Your task to perform on an android device: Open the map Image 0: 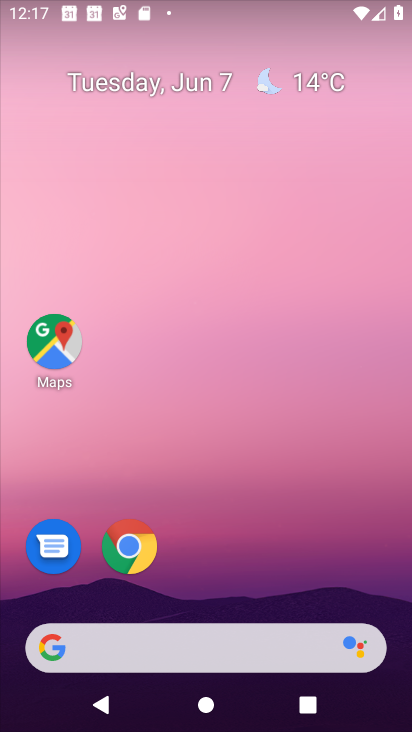
Step 0: click (59, 346)
Your task to perform on an android device: Open the map Image 1: 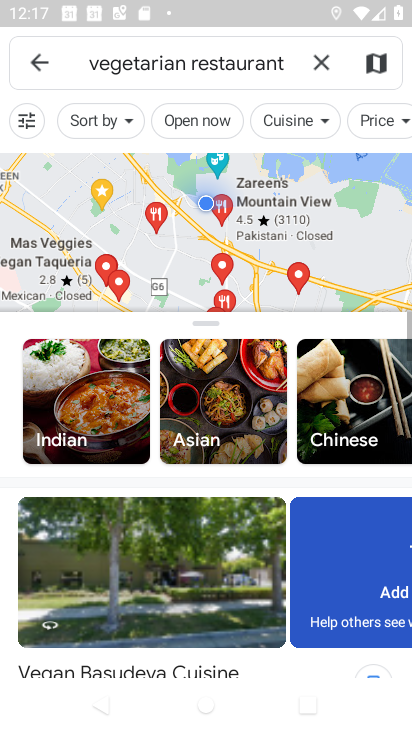
Step 1: click (36, 59)
Your task to perform on an android device: Open the map Image 2: 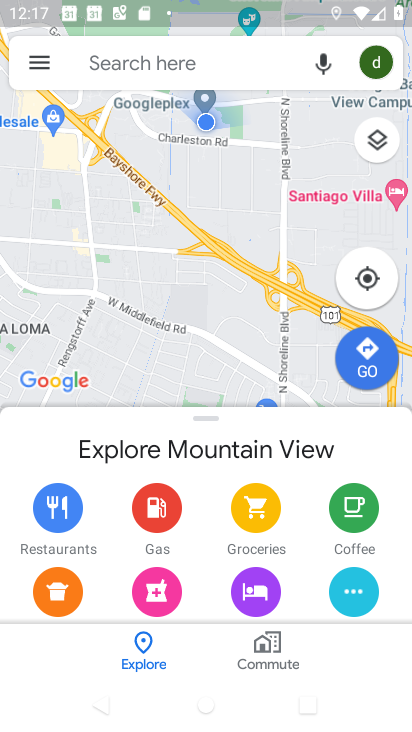
Step 2: task complete